Your task to perform on an android device: all mails in gmail Image 0: 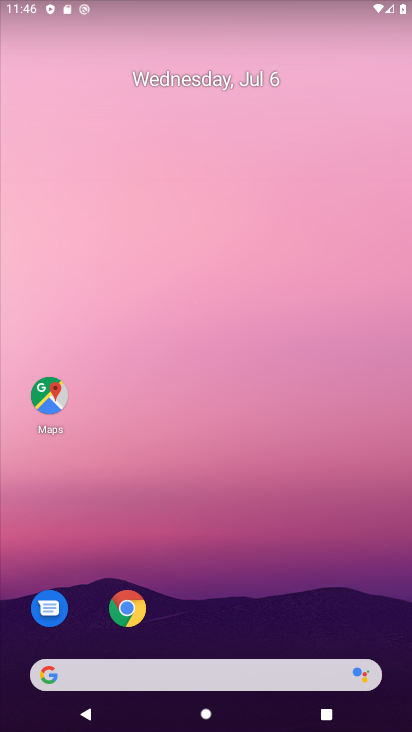
Step 0: click (406, 372)
Your task to perform on an android device: all mails in gmail Image 1: 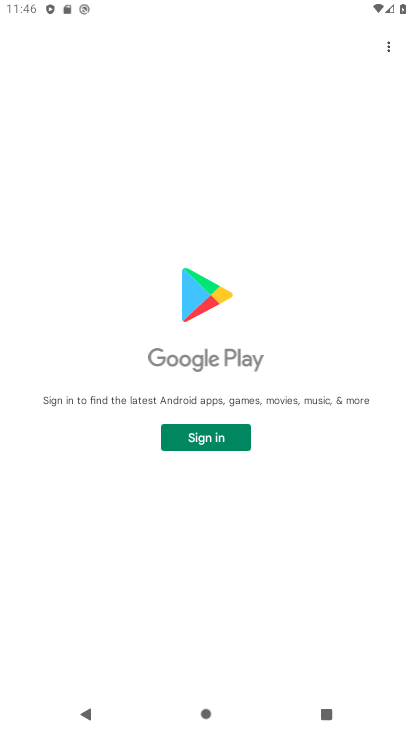
Step 1: press home button
Your task to perform on an android device: all mails in gmail Image 2: 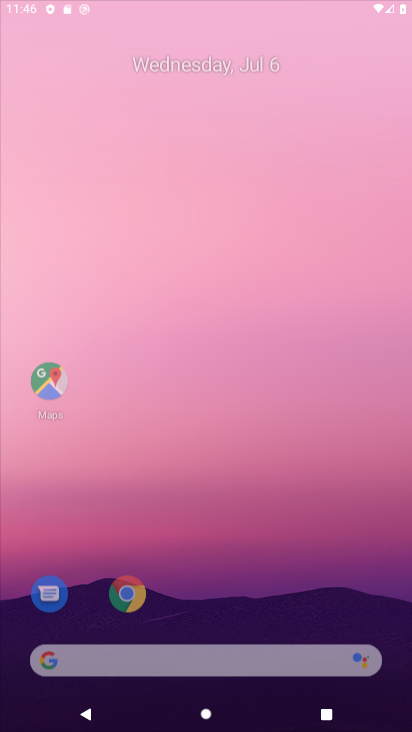
Step 2: drag from (224, 627) to (191, 19)
Your task to perform on an android device: all mails in gmail Image 3: 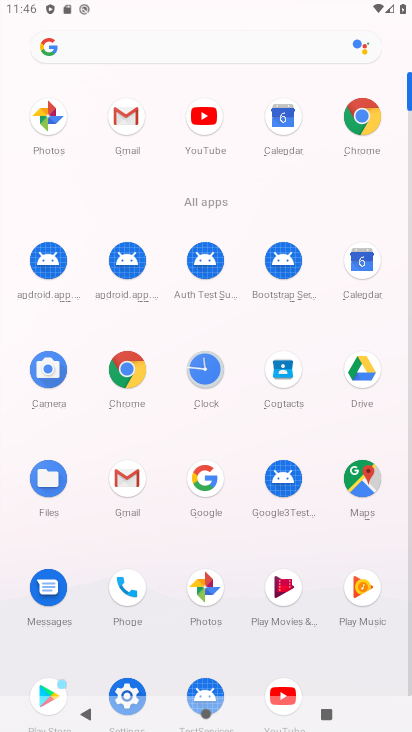
Step 3: click (107, 137)
Your task to perform on an android device: all mails in gmail Image 4: 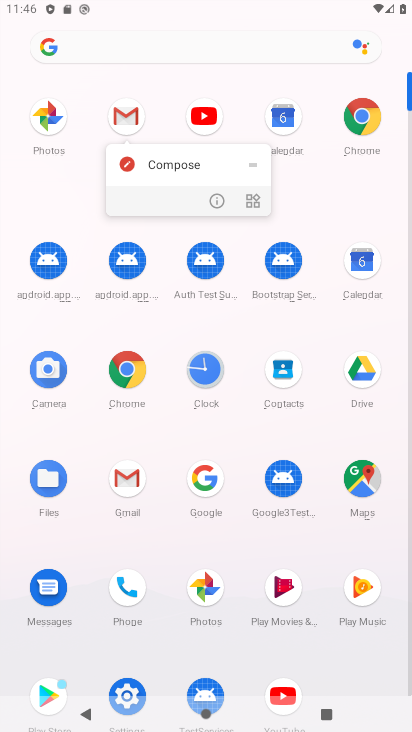
Step 4: click (108, 115)
Your task to perform on an android device: all mails in gmail Image 5: 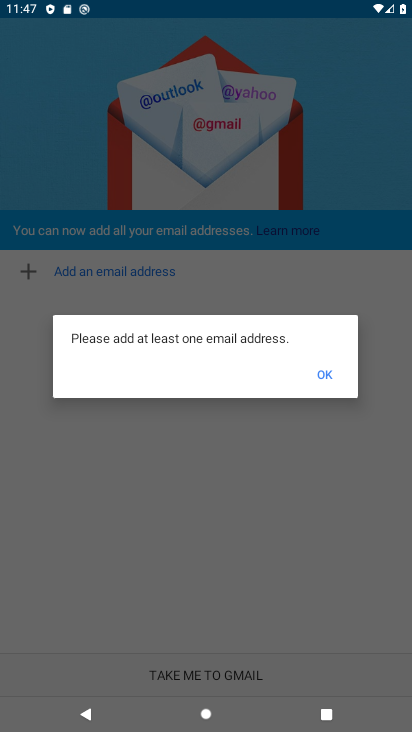
Step 5: task complete